Your task to perform on an android device: change your default location settings in chrome Image 0: 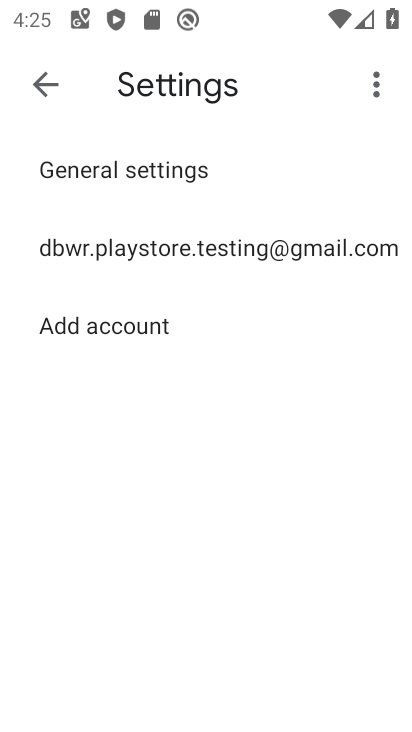
Step 0: press home button
Your task to perform on an android device: change your default location settings in chrome Image 1: 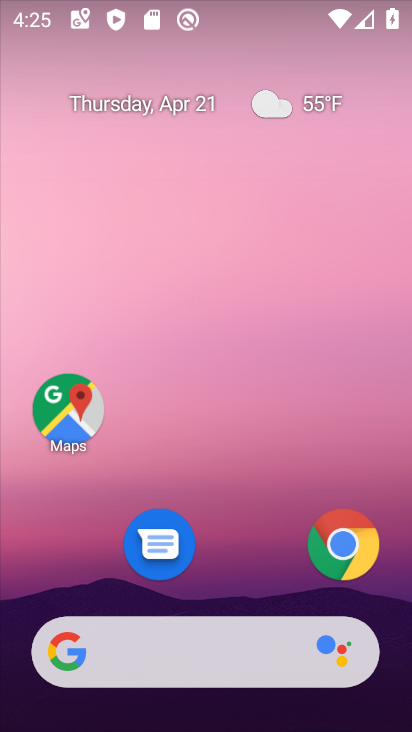
Step 1: drag from (220, 601) to (345, 97)
Your task to perform on an android device: change your default location settings in chrome Image 2: 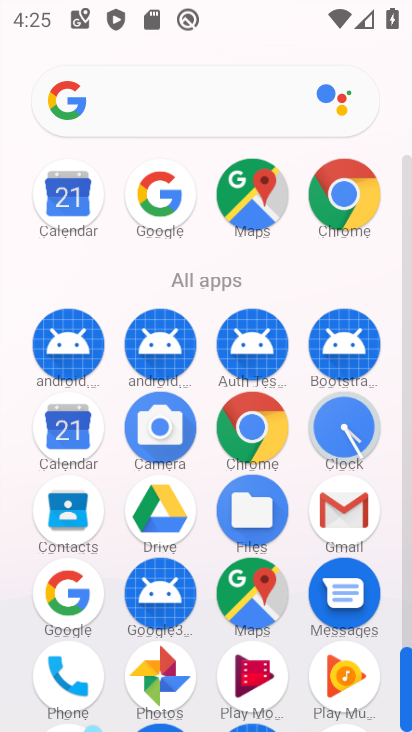
Step 2: click (265, 433)
Your task to perform on an android device: change your default location settings in chrome Image 3: 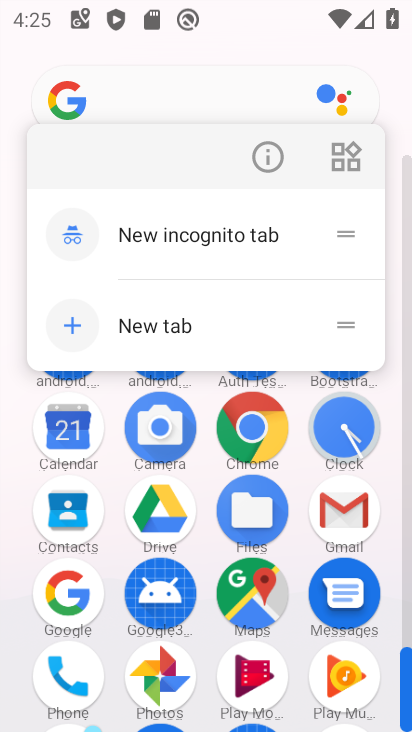
Step 3: click (262, 433)
Your task to perform on an android device: change your default location settings in chrome Image 4: 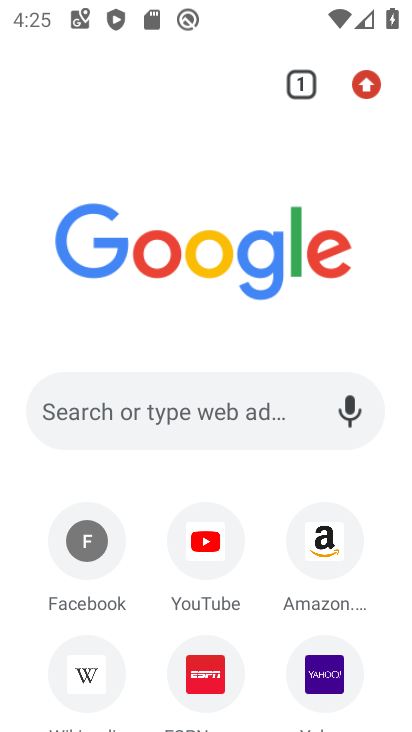
Step 4: drag from (373, 92) to (114, 726)
Your task to perform on an android device: change your default location settings in chrome Image 5: 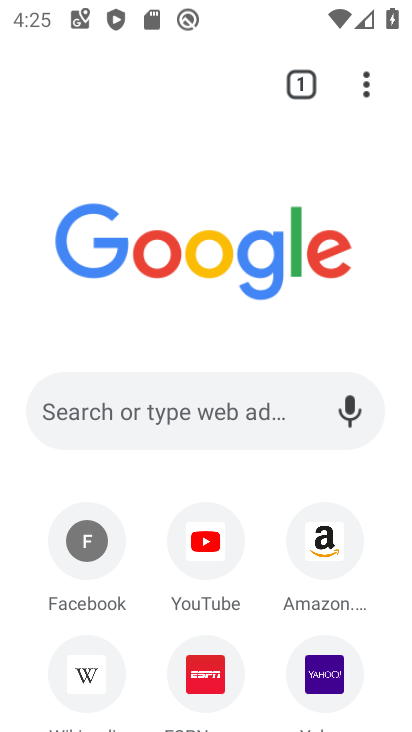
Step 5: drag from (370, 84) to (166, 598)
Your task to perform on an android device: change your default location settings in chrome Image 6: 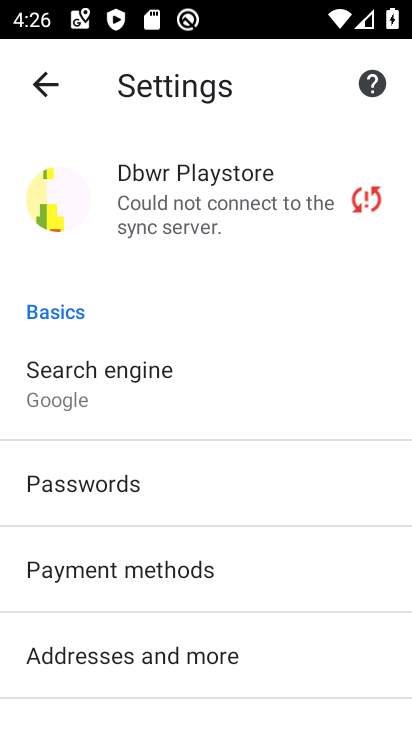
Step 6: drag from (227, 695) to (307, 137)
Your task to perform on an android device: change your default location settings in chrome Image 7: 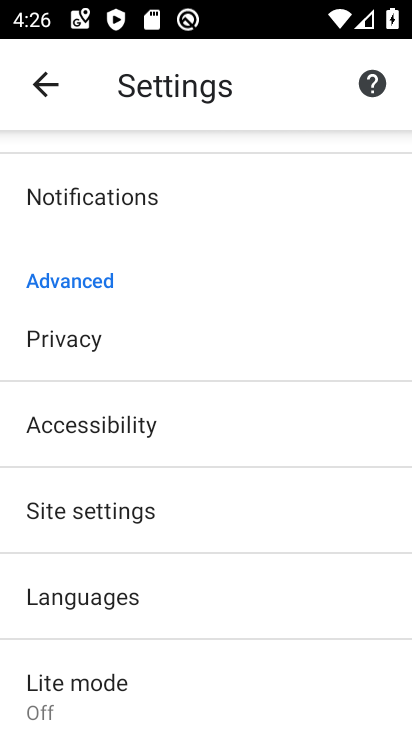
Step 7: drag from (233, 652) to (291, 144)
Your task to perform on an android device: change your default location settings in chrome Image 8: 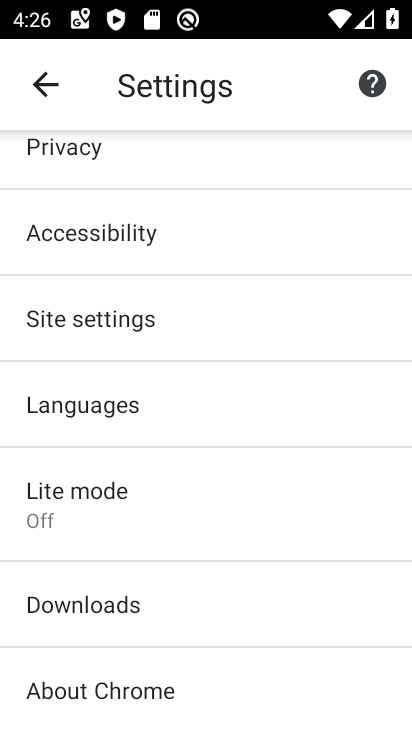
Step 8: click (72, 321)
Your task to perform on an android device: change your default location settings in chrome Image 9: 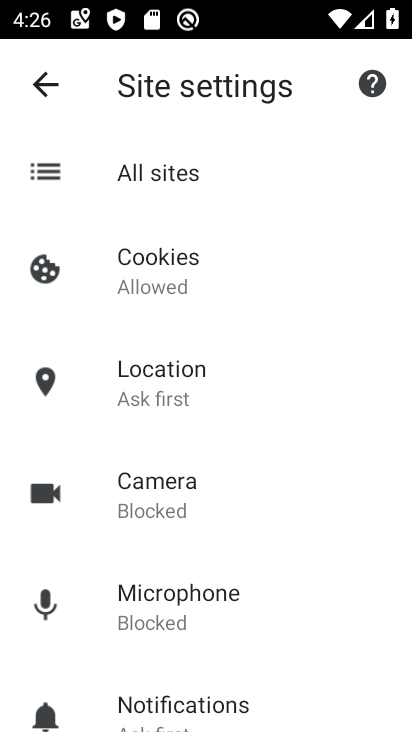
Step 9: drag from (232, 115) to (260, 91)
Your task to perform on an android device: change your default location settings in chrome Image 10: 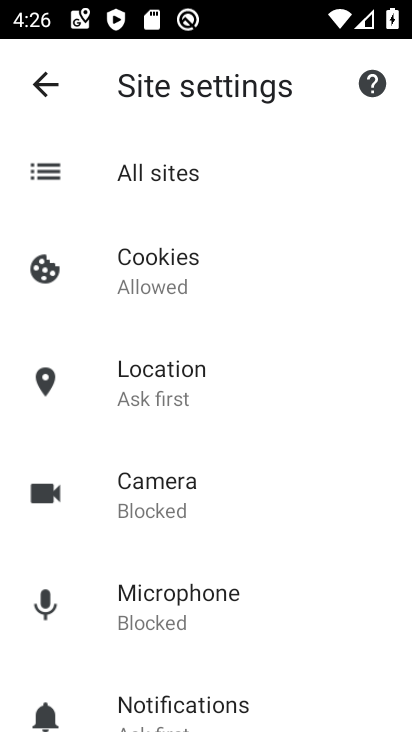
Step 10: drag from (220, 358) to (233, 232)
Your task to perform on an android device: change your default location settings in chrome Image 11: 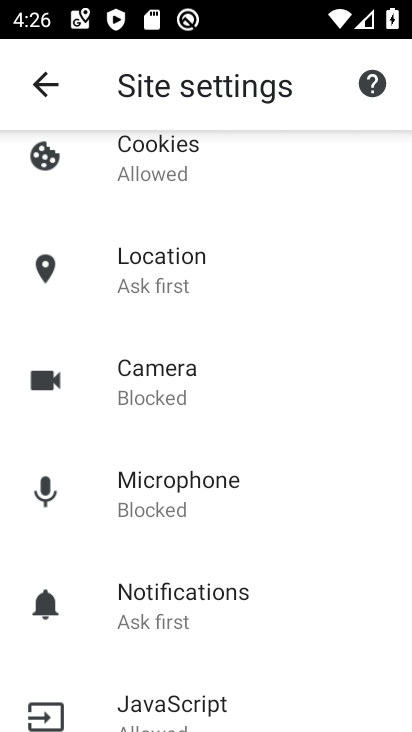
Step 11: click (142, 256)
Your task to perform on an android device: change your default location settings in chrome Image 12: 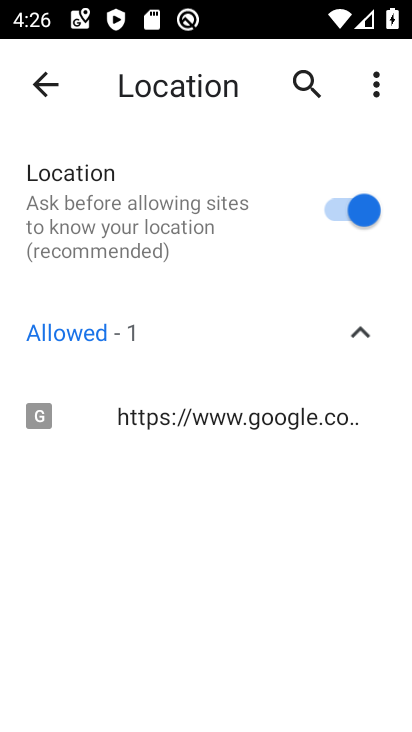
Step 12: click (371, 321)
Your task to perform on an android device: change your default location settings in chrome Image 13: 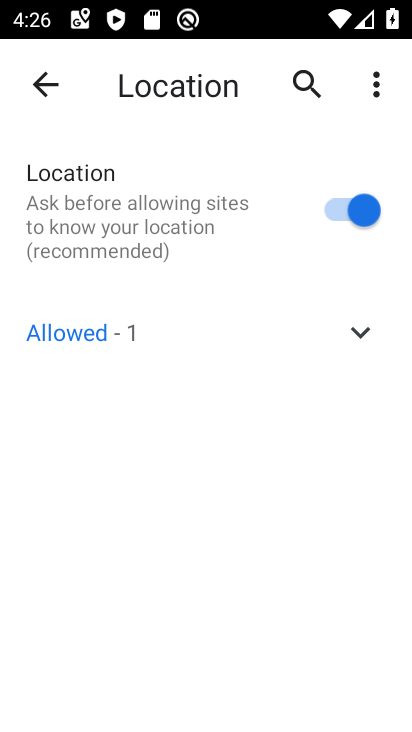
Step 13: click (373, 199)
Your task to perform on an android device: change your default location settings in chrome Image 14: 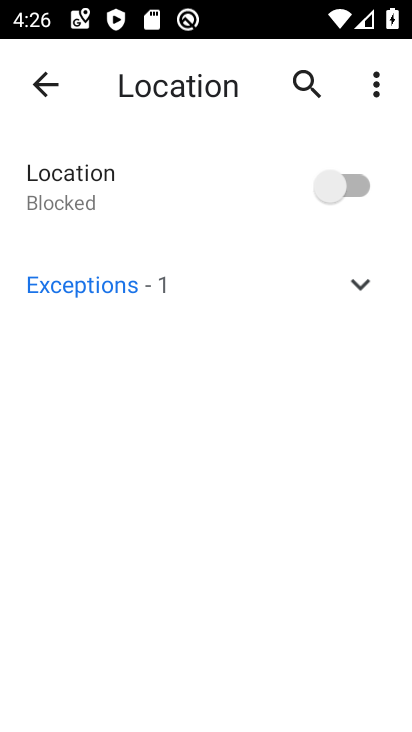
Step 14: click (368, 190)
Your task to perform on an android device: change your default location settings in chrome Image 15: 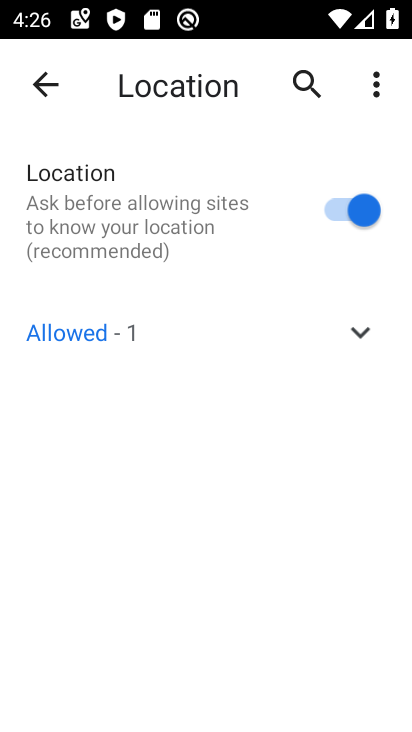
Step 15: click (375, 84)
Your task to perform on an android device: change your default location settings in chrome Image 16: 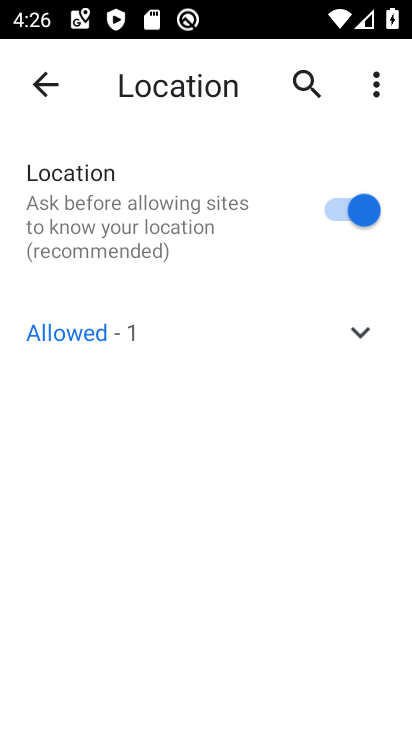
Step 16: click (381, 81)
Your task to perform on an android device: change your default location settings in chrome Image 17: 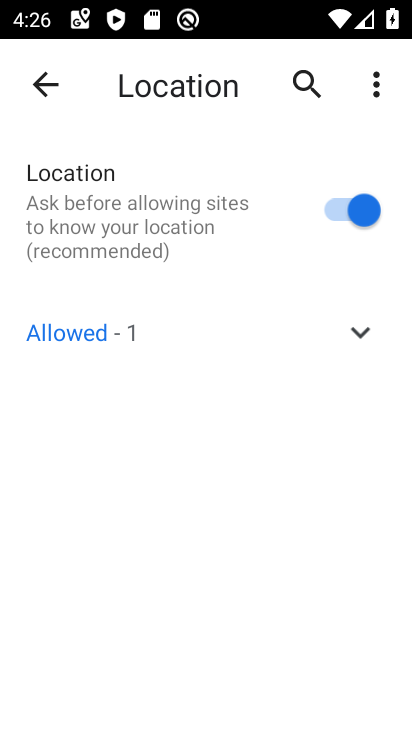
Step 17: task complete